Your task to perform on an android device: turn off notifications in google photos Image 0: 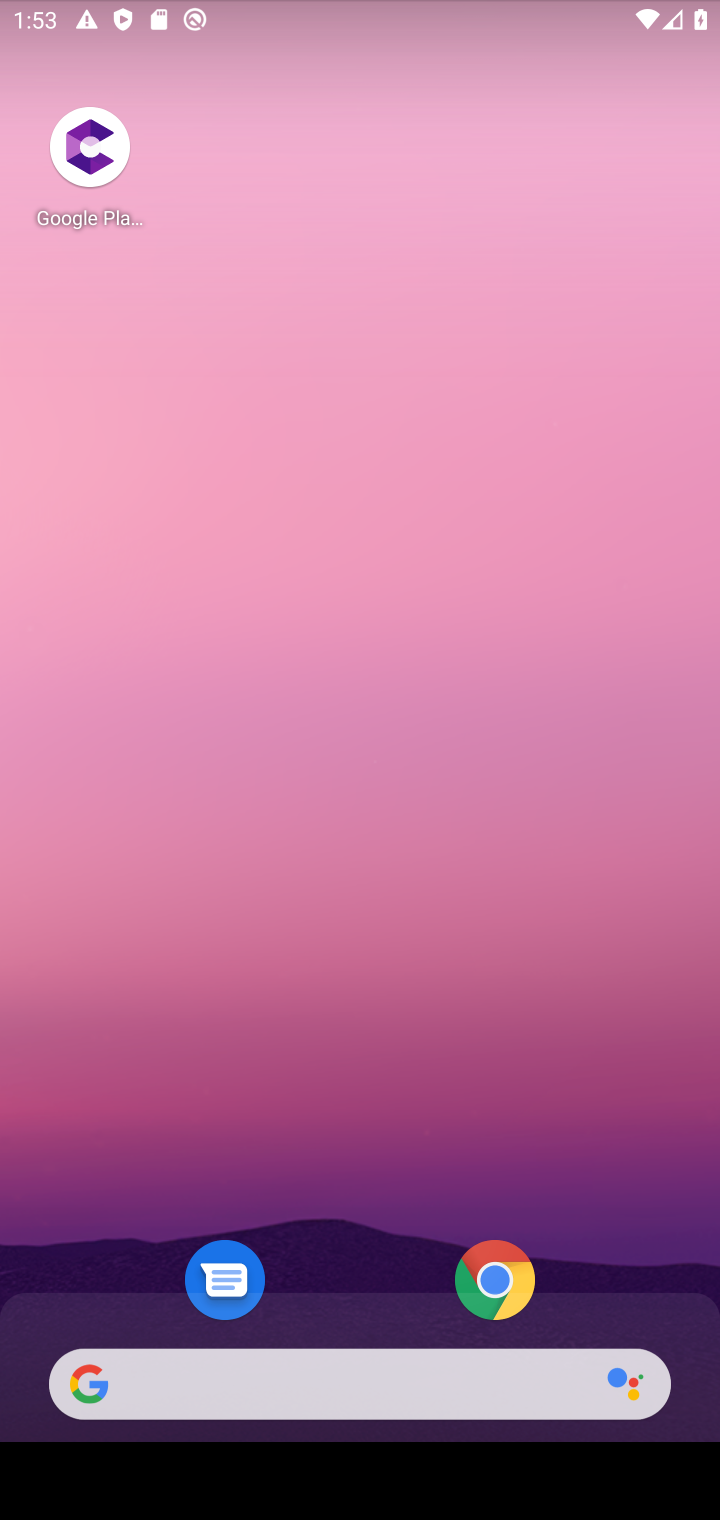
Step 0: press home button
Your task to perform on an android device: turn off notifications in google photos Image 1: 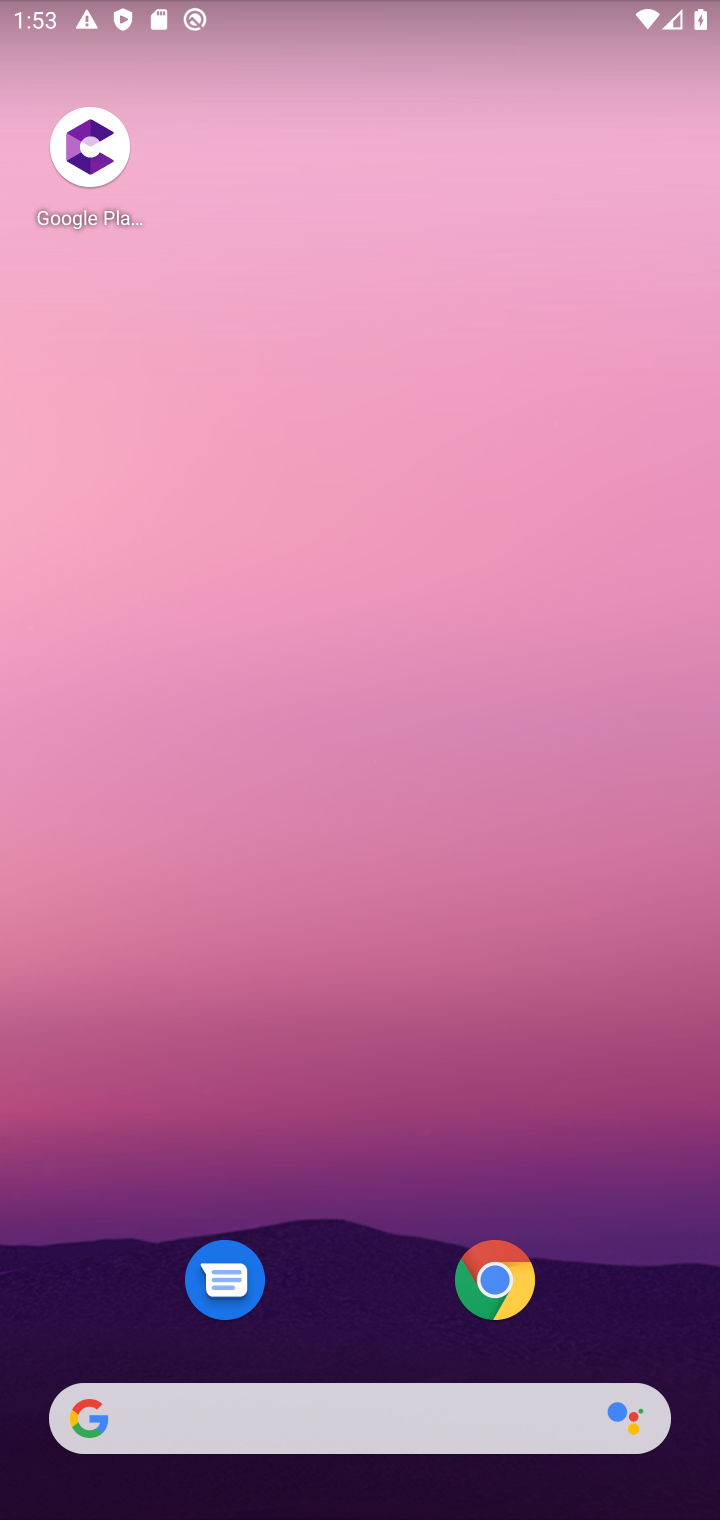
Step 1: drag from (303, 1325) to (595, 177)
Your task to perform on an android device: turn off notifications in google photos Image 2: 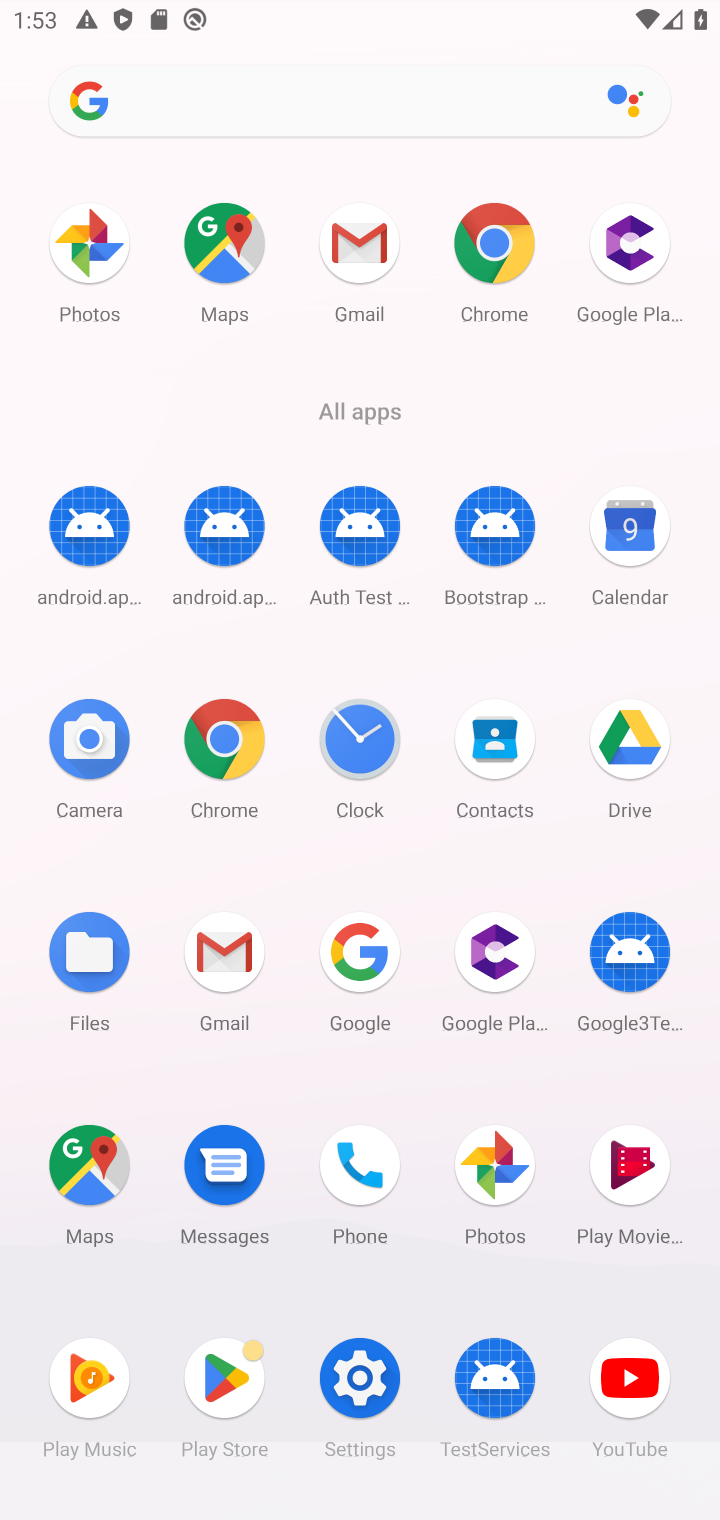
Step 2: click (483, 1175)
Your task to perform on an android device: turn off notifications in google photos Image 3: 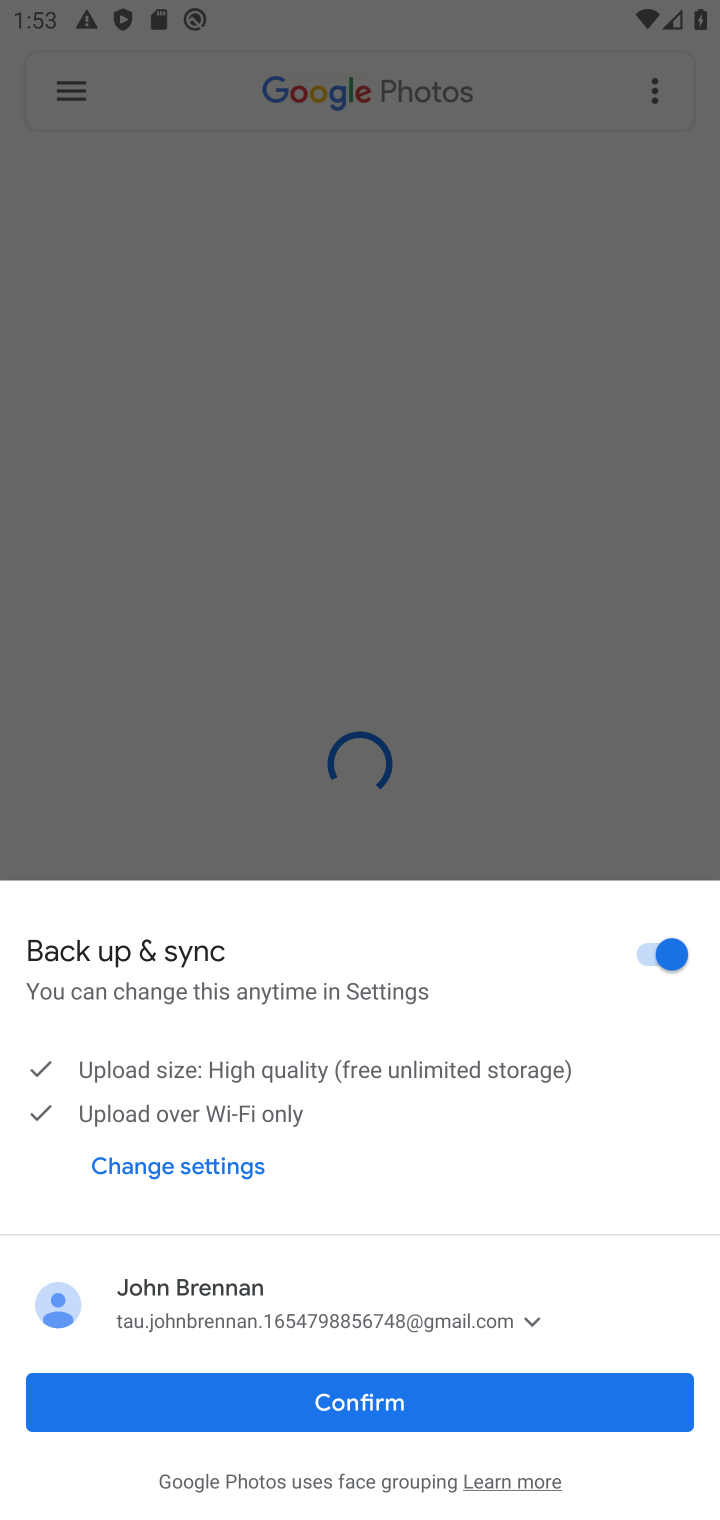
Step 3: click (362, 1386)
Your task to perform on an android device: turn off notifications in google photos Image 4: 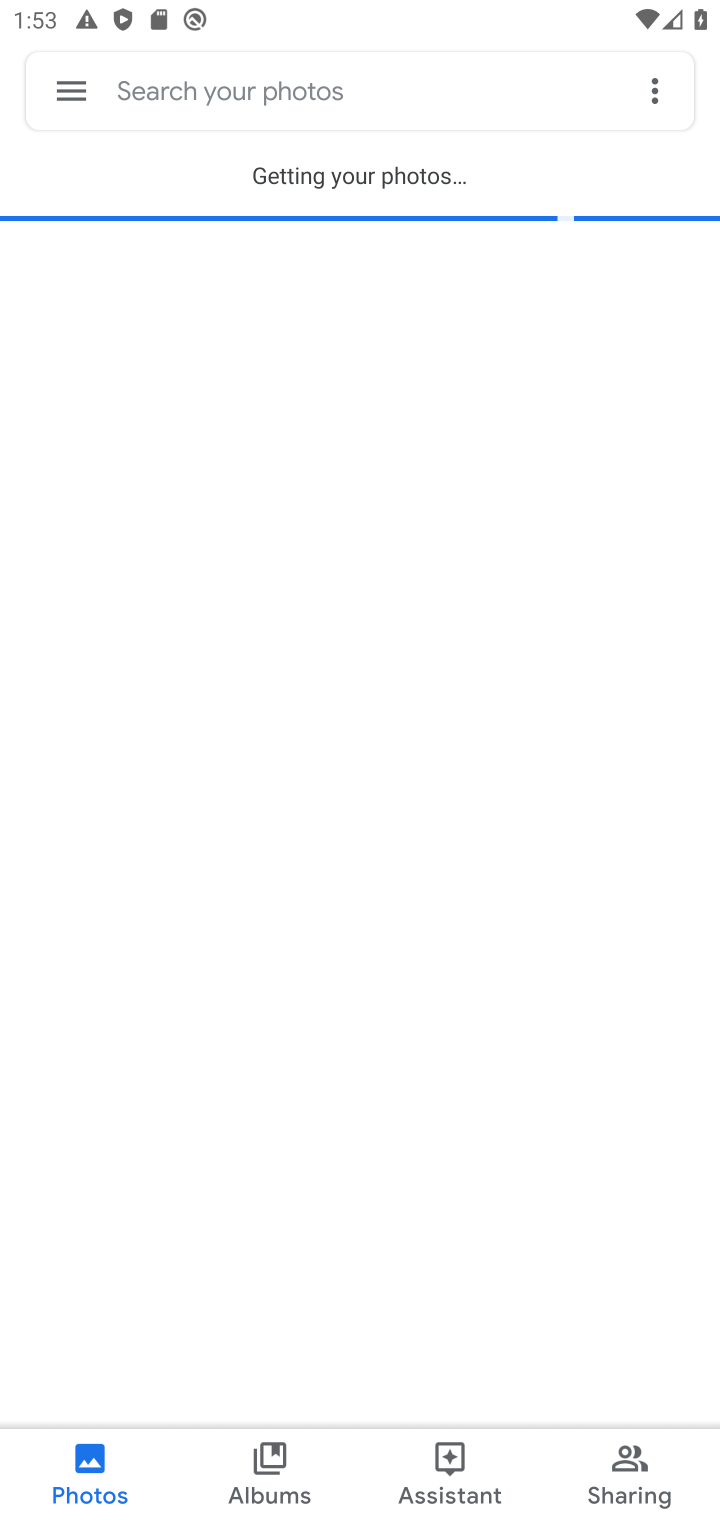
Step 4: click (61, 80)
Your task to perform on an android device: turn off notifications in google photos Image 5: 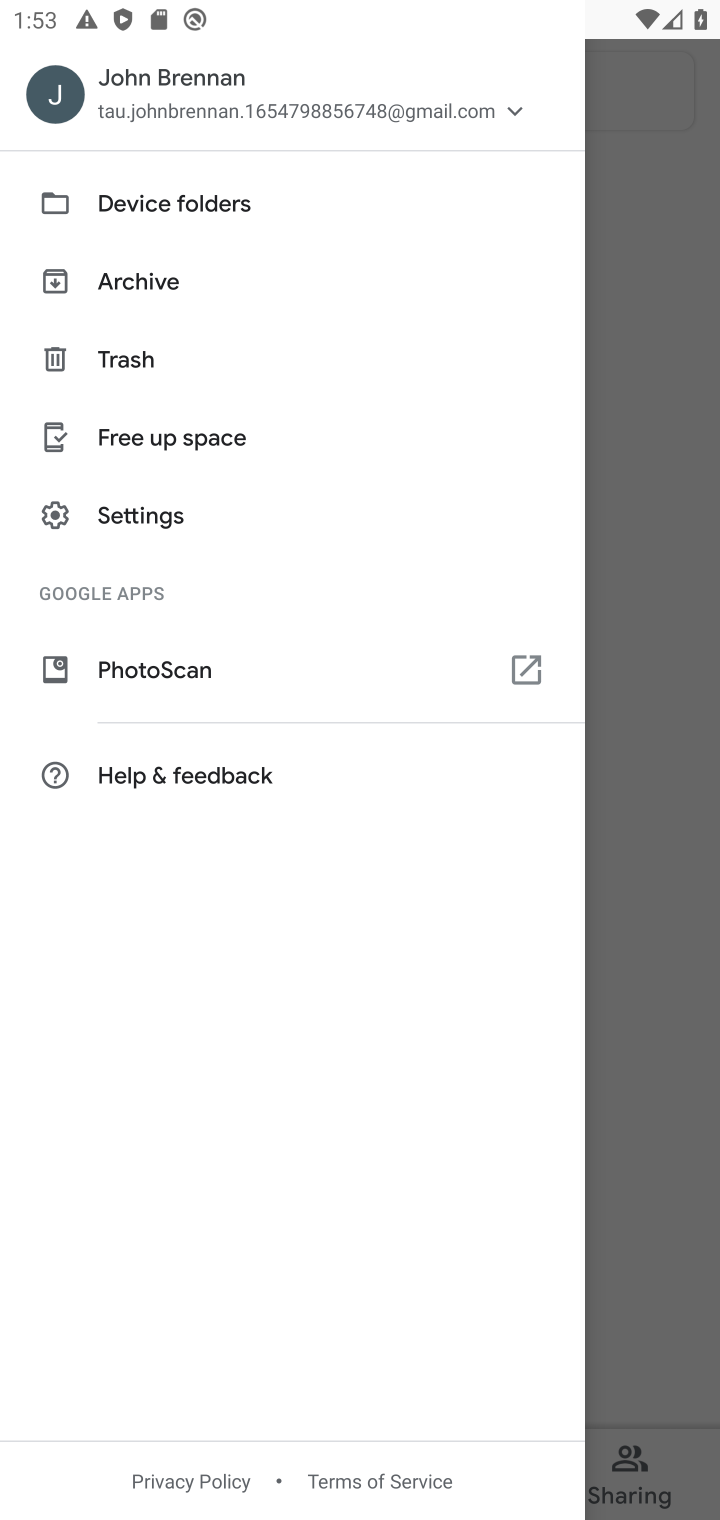
Step 5: click (162, 509)
Your task to perform on an android device: turn off notifications in google photos Image 6: 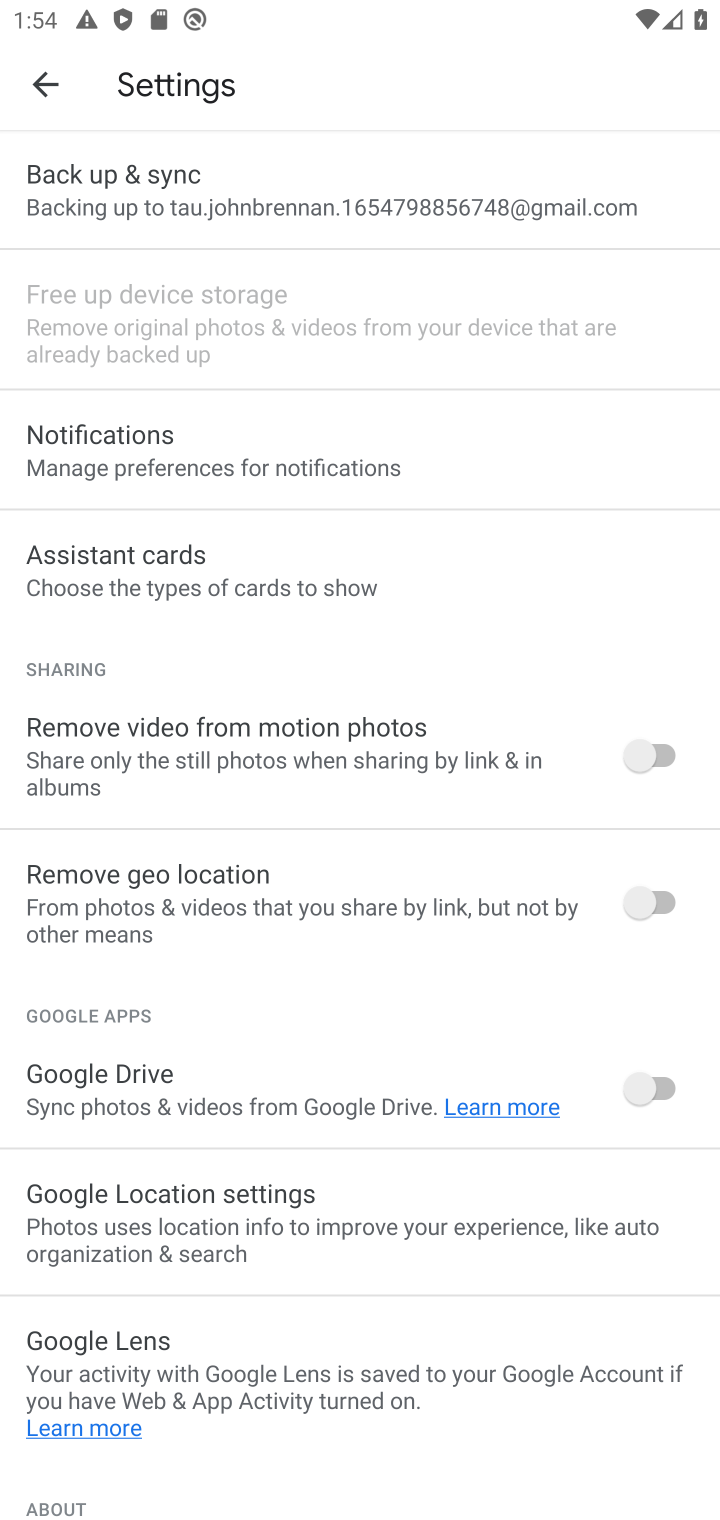
Step 6: click (220, 441)
Your task to perform on an android device: turn off notifications in google photos Image 7: 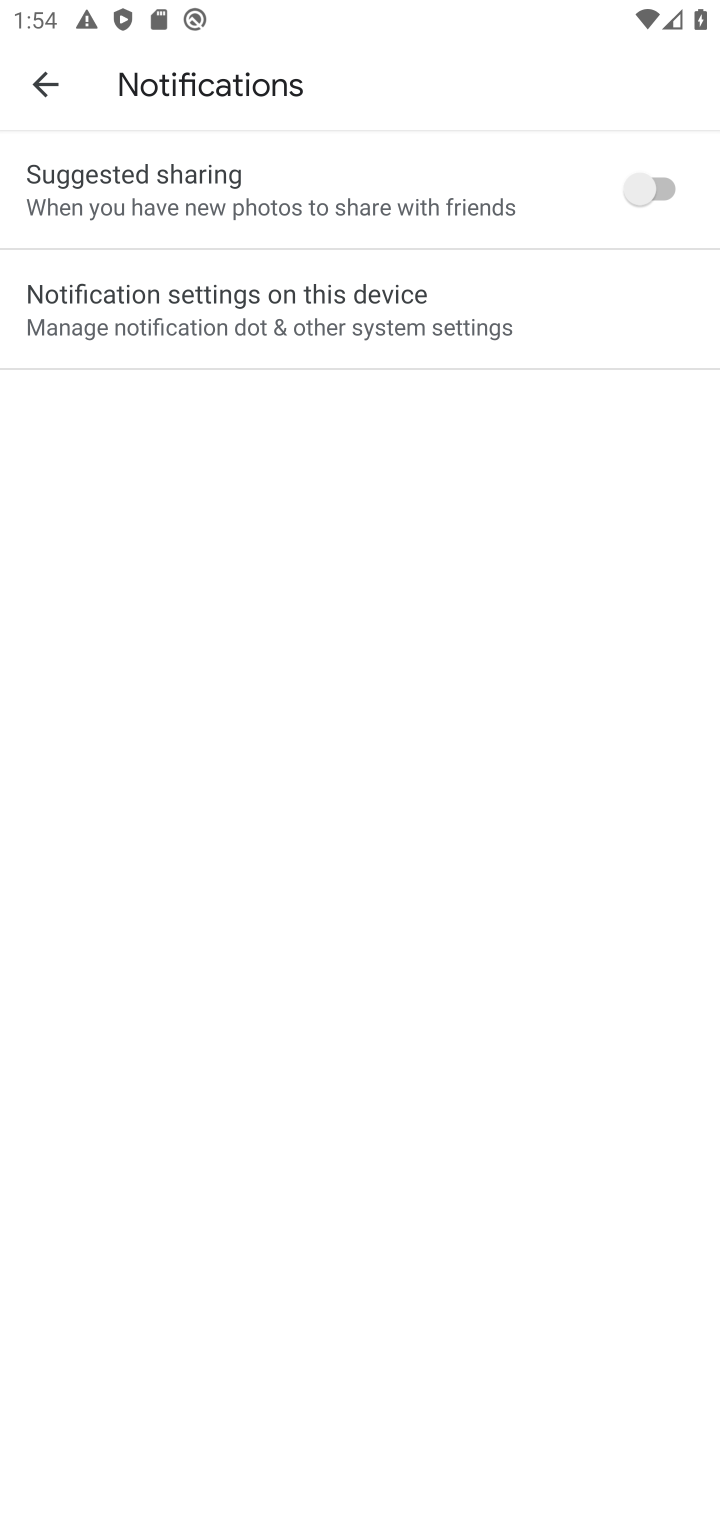
Step 7: click (302, 311)
Your task to perform on an android device: turn off notifications in google photos Image 8: 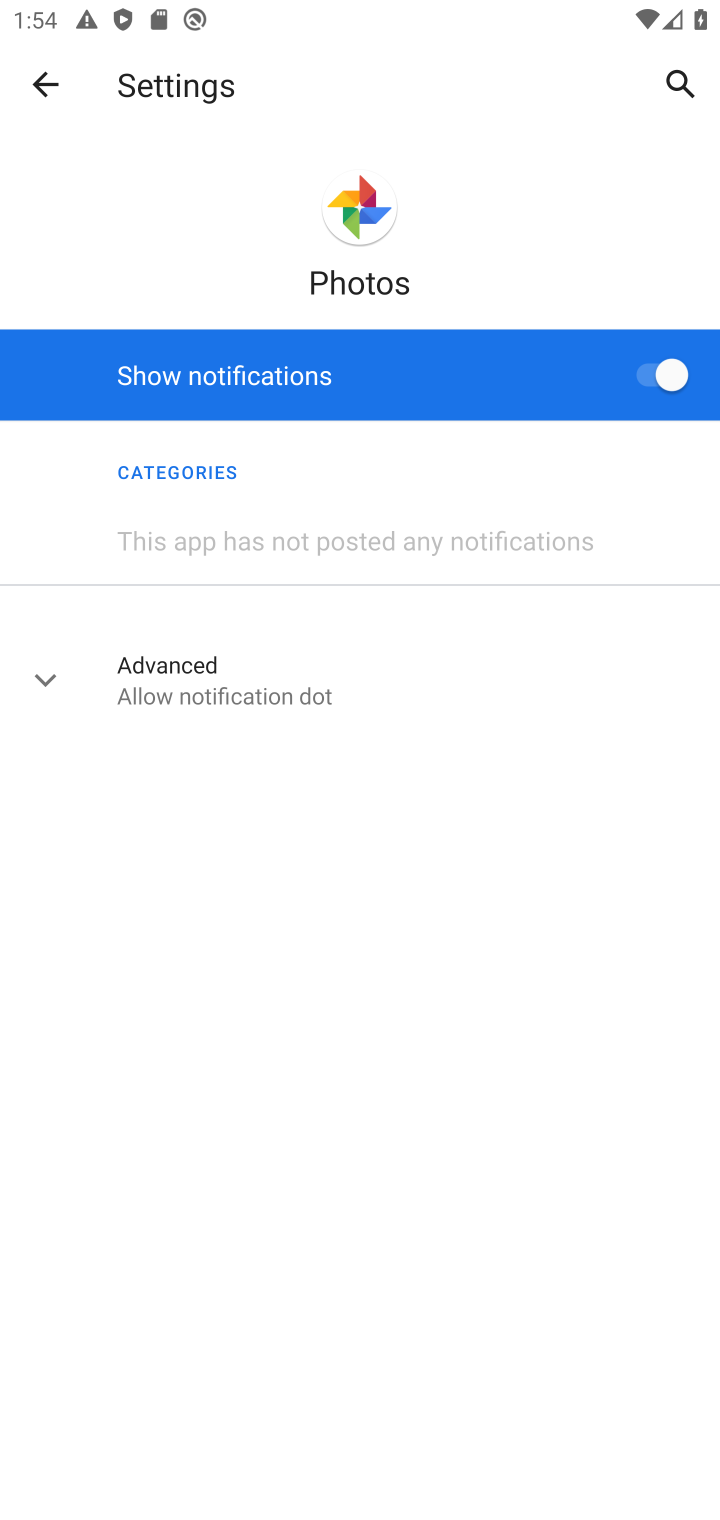
Step 8: click (645, 375)
Your task to perform on an android device: turn off notifications in google photos Image 9: 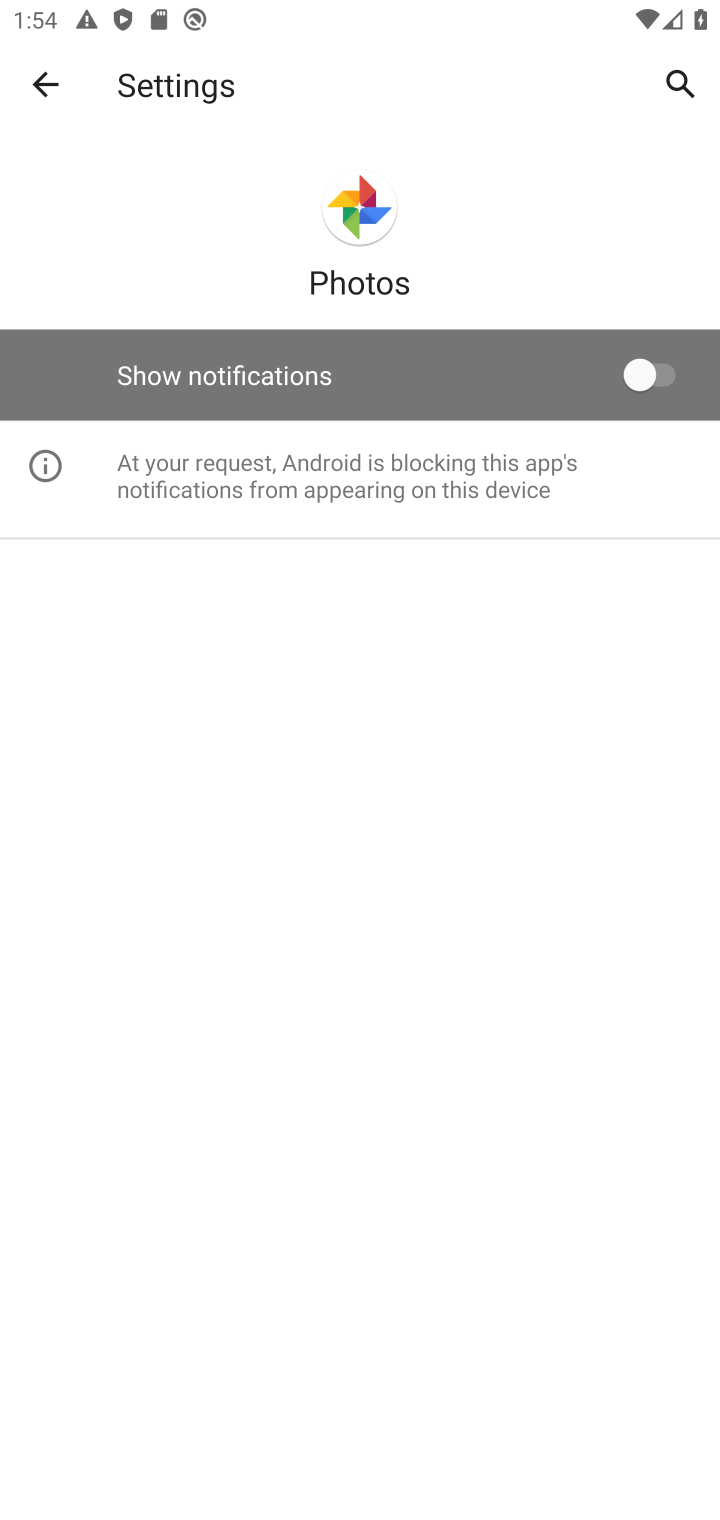
Step 9: task complete